Your task to perform on an android device: open a new tab in the chrome app Image 0: 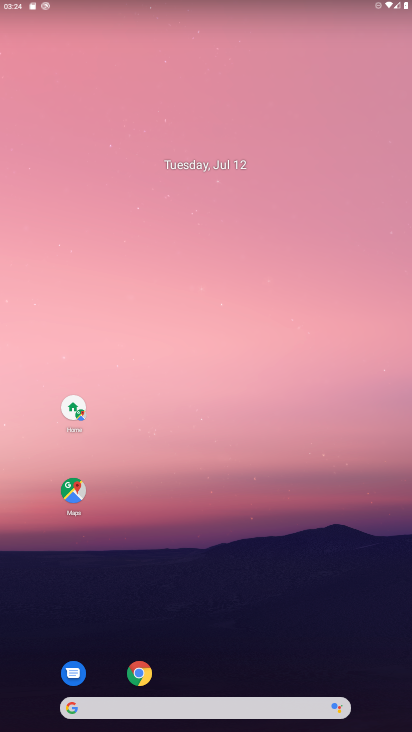
Step 0: drag from (235, 653) to (267, 383)
Your task to perform on an android device: open a new tab in the chrome app Image 1: 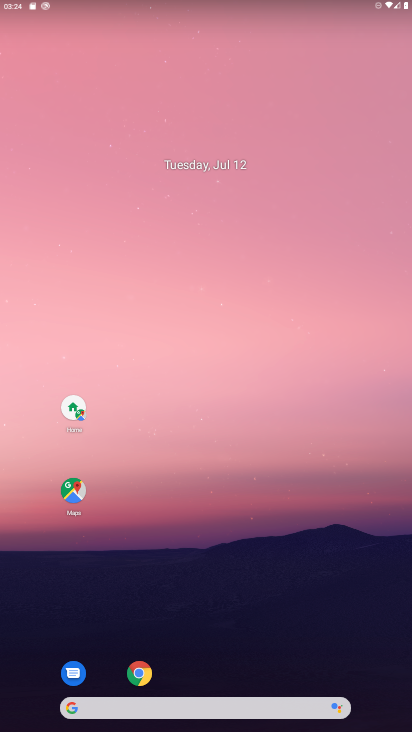
Step 1: drag from (195, 625) to (189, 264)
Your task to perform on an android device: open a new tab in the chrome app Image 2: 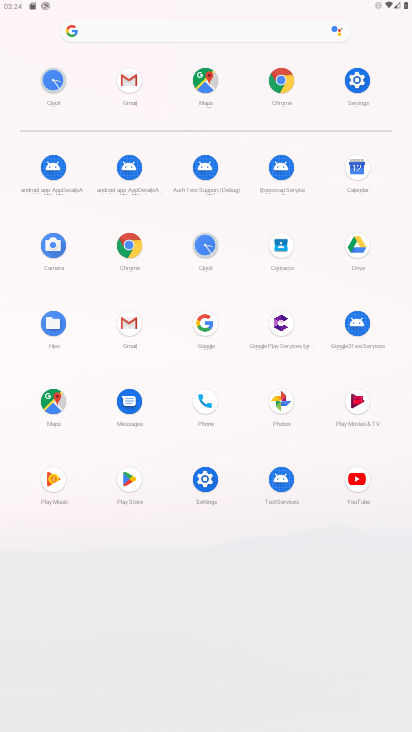
Step 2: click (134, 242)
Your task to perform on an android device: open a new tab in the chrome app Image 3: 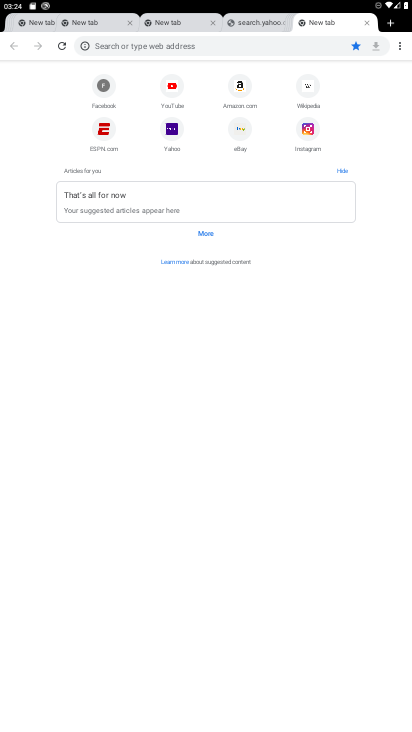
Step 3: click (401, 43)
Your task to perform on an android device: open a new tab in the chrome app Image 4: 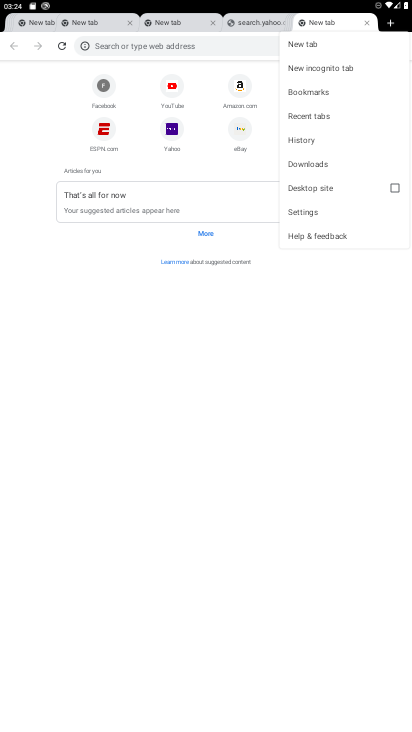
Step 4: click (304, 47)
Your task to perform on an android device: open a new tab in the chrome app Image 5: 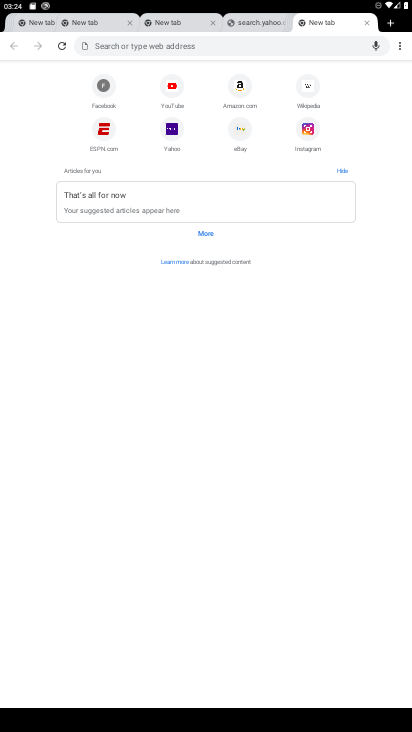
Step 5: task complete